Your task to perform on an android device: Open maps Image 0: 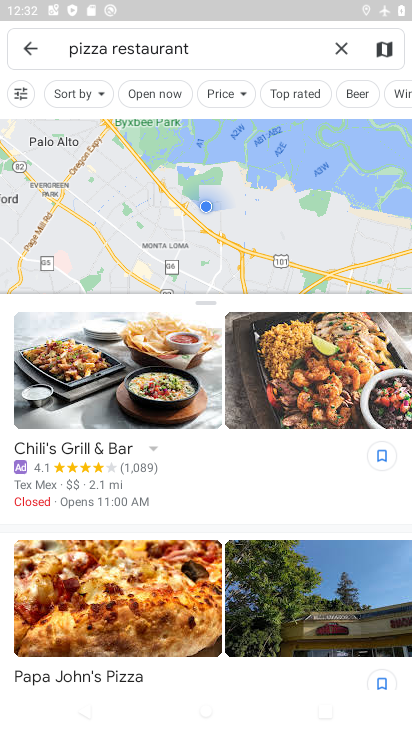
Step 0: task complete